Your task to perform on an android device: refresh tabs in the chrome app Image 0: 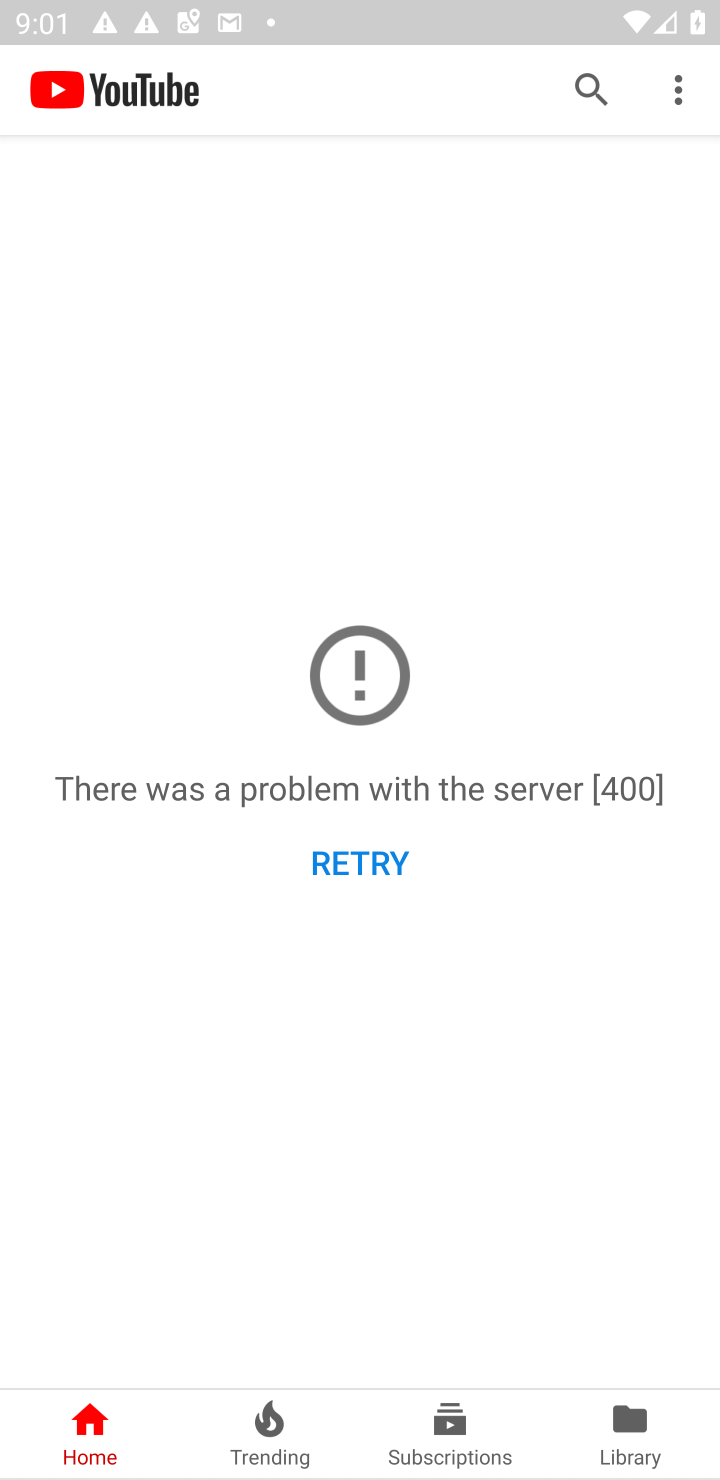
Step 0: press home button
Your task to perform on an android device: refresh tabs in the chrome app Image 1: 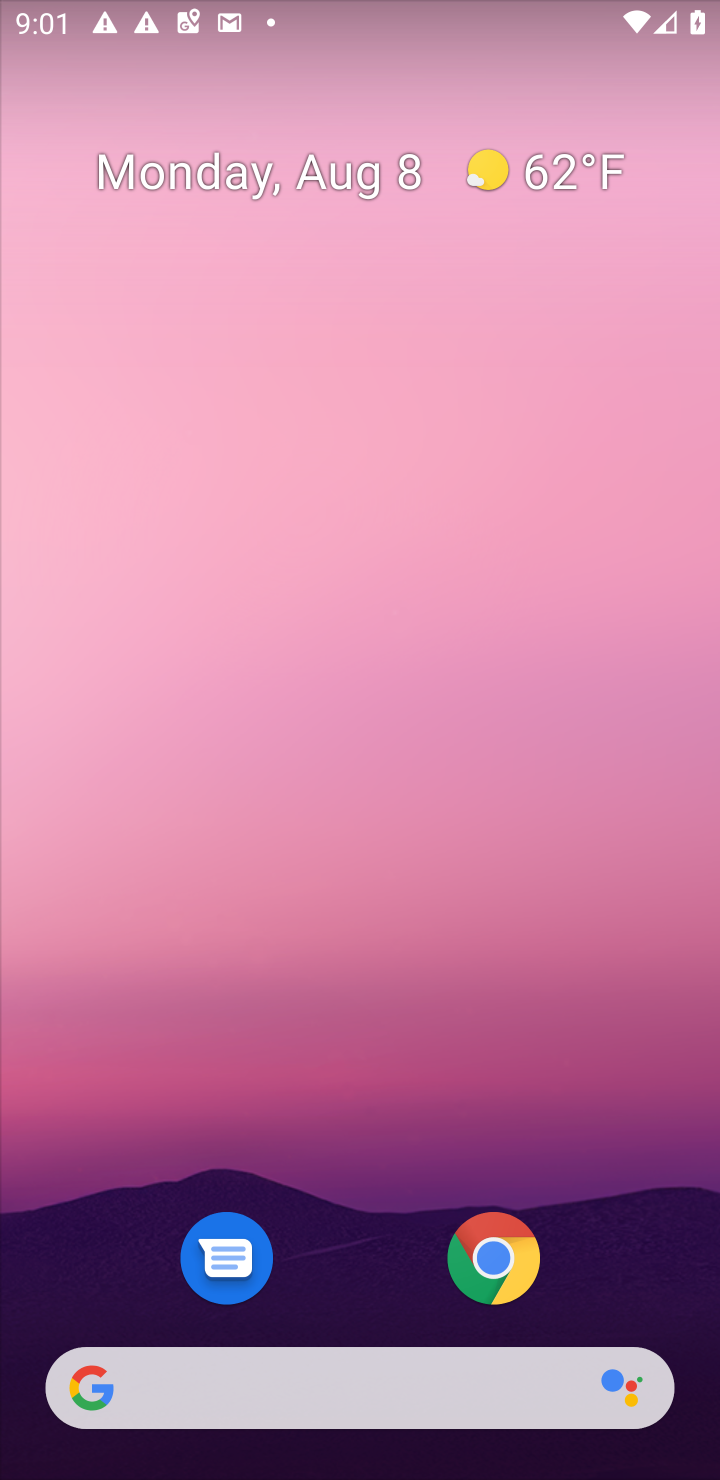
Step 1: click (480, 1252)
Your task to perform on an android device: refresh tabs in the chrome app Image 2: 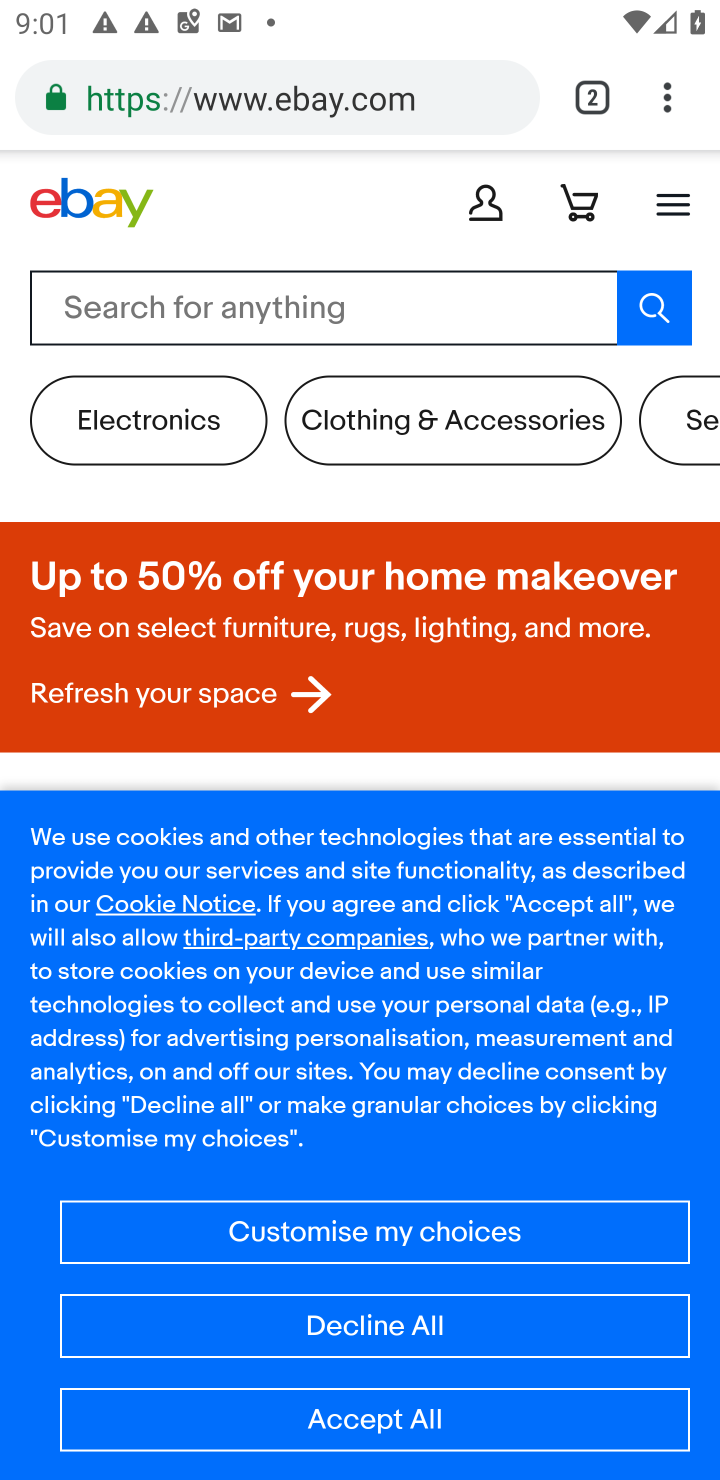
Step 2: task complete